Your task to perform on an android device: allow cookies in the chrome app Image 0: 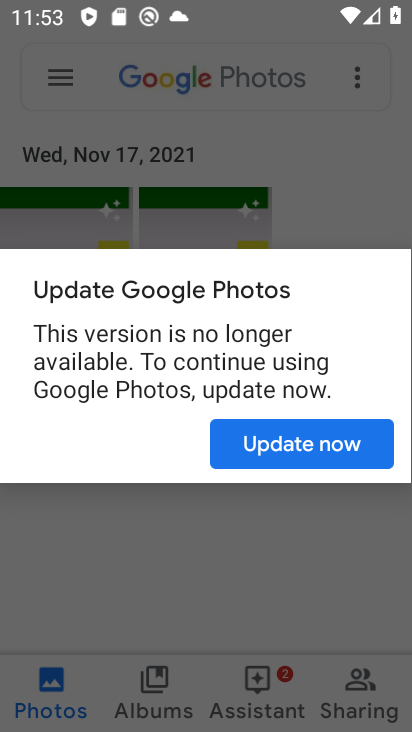
Step 0: press home button
Your task to perform on an android device: allow cookies in the chrome app Image 1: 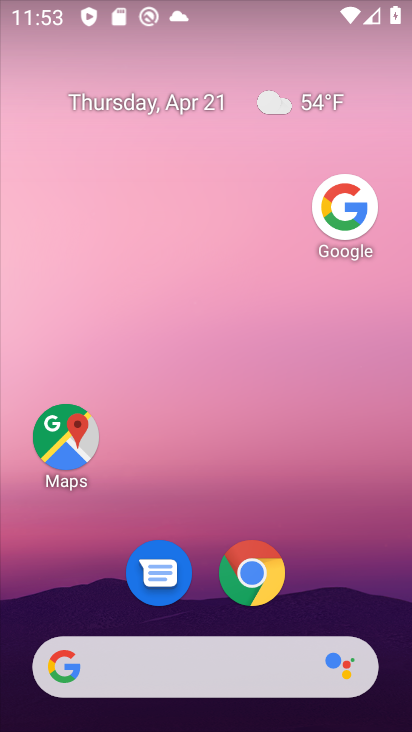
Step 1: drag from (179, 669) to (246, 159)
Your task to perform on an android device: allow cookies in the chrome app Image 2: 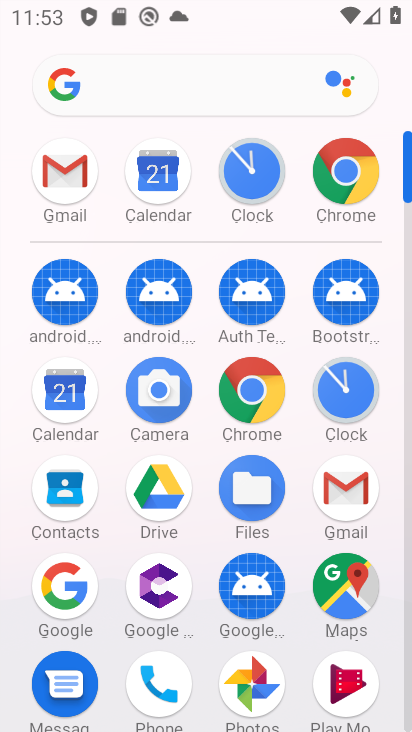
Step 2: click (346, 189)
Your task to perform on an android device: allow cookies in the chrome app Image 3: 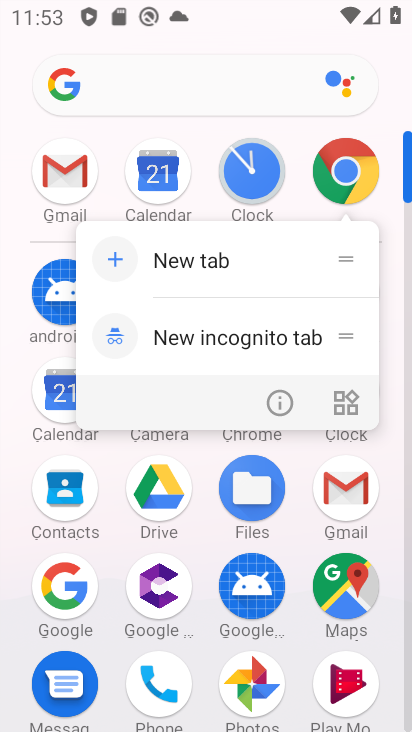
Step 3: click (347, 180)
Your task to perform on an android device: allow cookies in the chrome app Image 4: 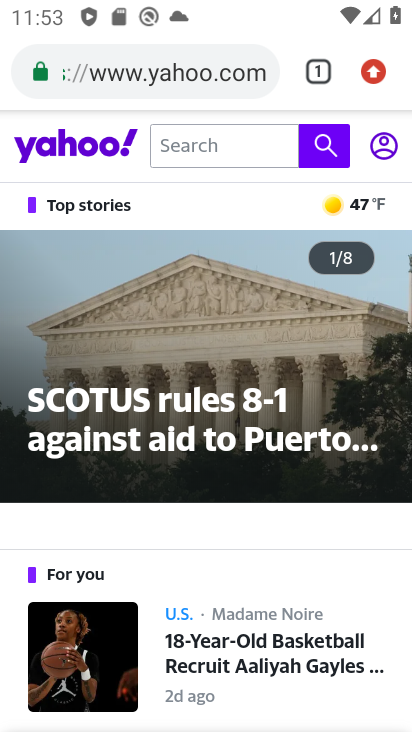
Step 4: click (369, 88)
Your task to perform on an android device: allow cookies in the chrome app Image 5: 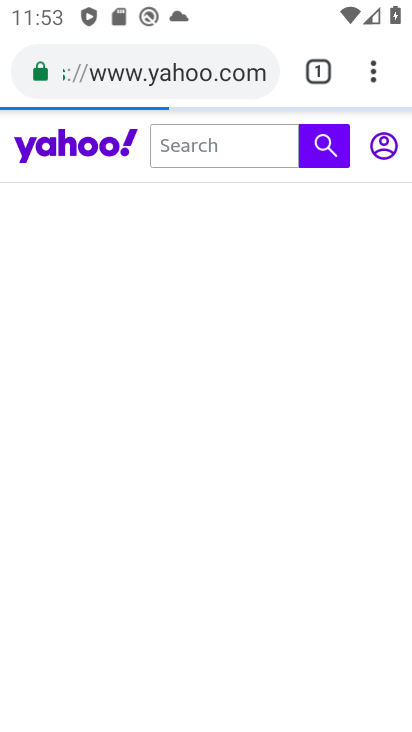
Step 5: click (364, 84)
Your task to perform on an android device: allow cookies in the chrome app Image 6: 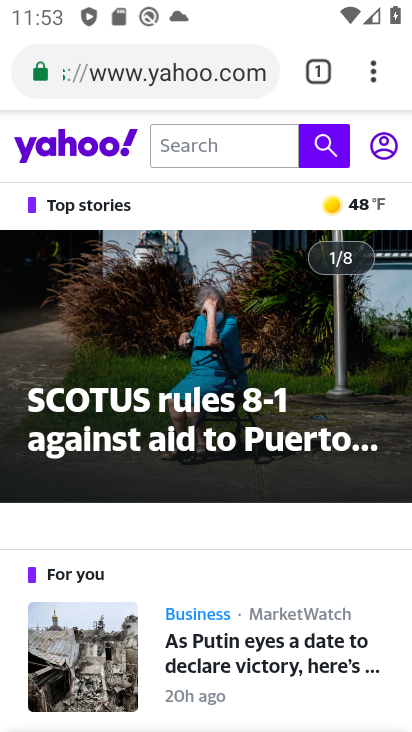
Step 6: click (358, 84)
Your task to perform on an android device: allow cookies in the chrome app Image 7: 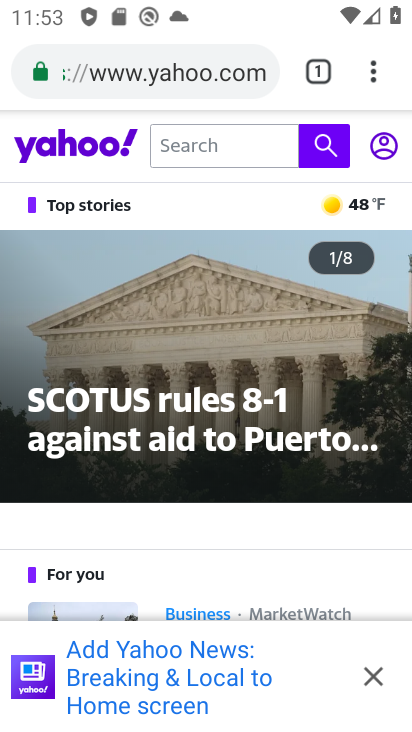
Step 7: click (362, 87)
Your task to perform on an android device: allow cookies in the chrome app Image 8: 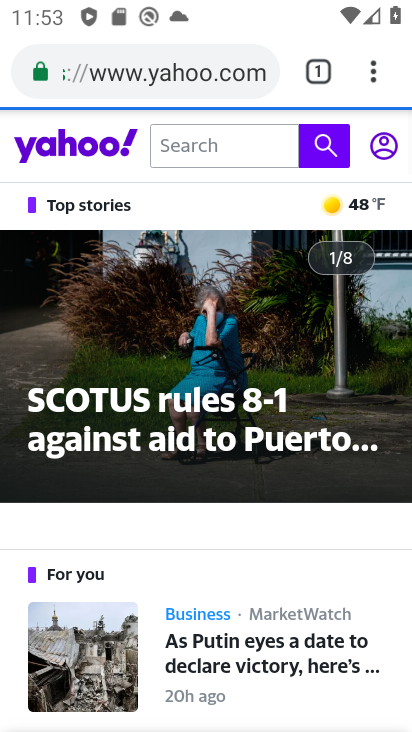
Step 8: click (357, 85)
Your task to perform on an android device: allow cookies in the chrome app Image 9: 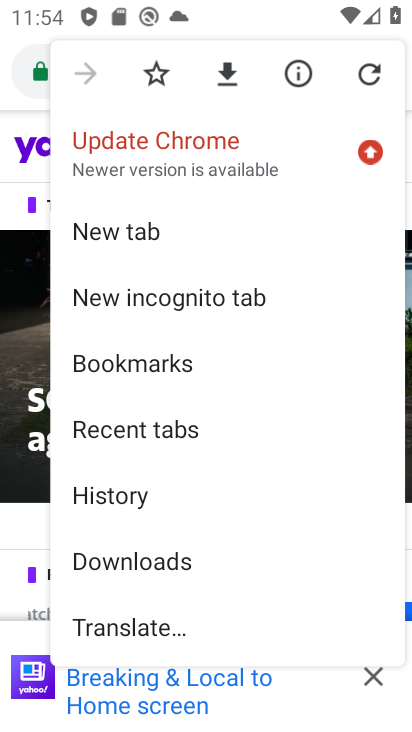
Step 9: drag from (220, 537) to (360, 128)
Your task to perform on an android device: allow cookies in the chrome app Image 10: 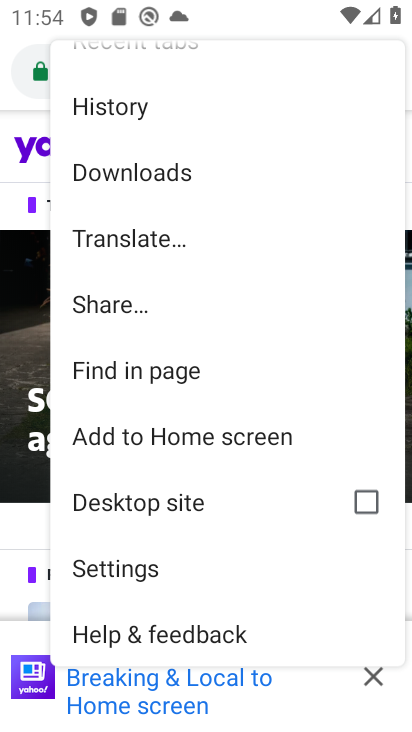
Step 10: drag from (139, 595) to (334, 182)
Your task to perform on an android device: allow cookies in the chrome app Image 11: 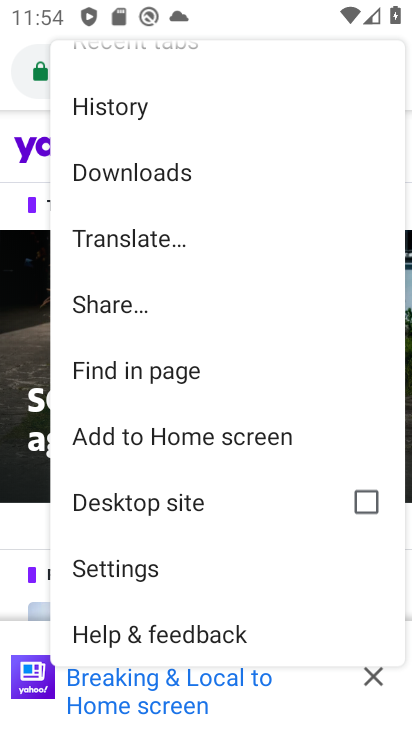
Step 11: click (118, 573)
Your task to perform on an android device: allow cookies in the chrome app Image 12: 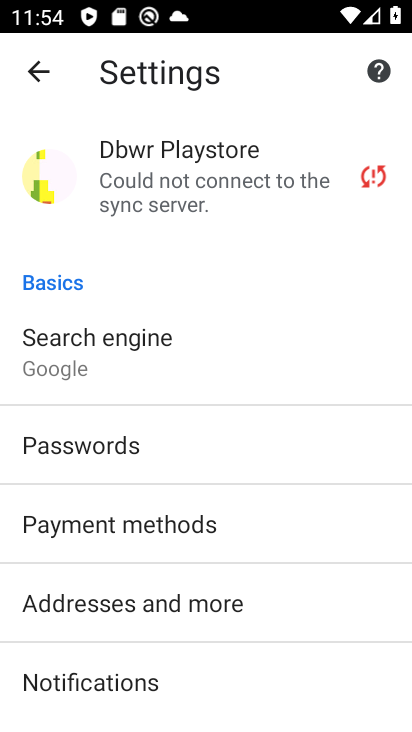
Step 12: drag from (126, 676) to (323, 271)
Your task to perform on an android device: allow cookies in the chrome app Image 13: 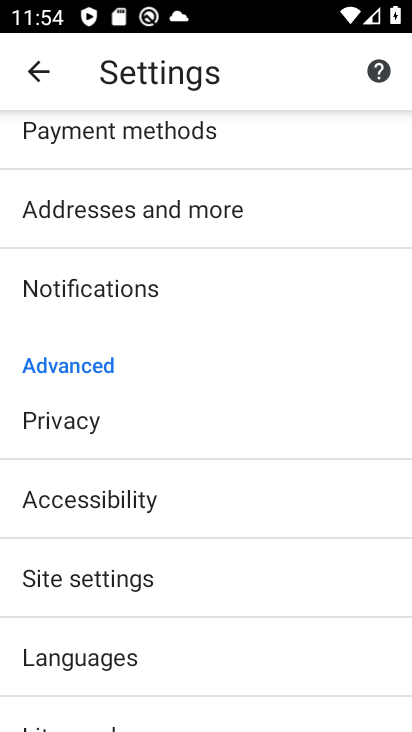
Step 13: click (116, 584)
Your task to perform on an android device: allow cookies in the chrome app Image 14: 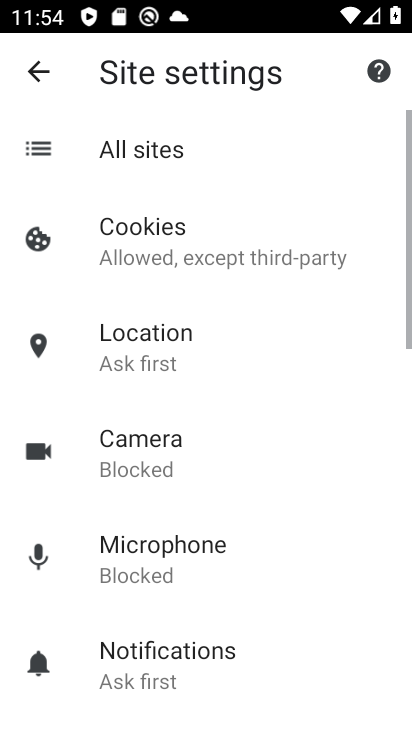
Step 14: click (202, 237)
Your task to perform on an android device: allow cookies in the chrome app Image 15: 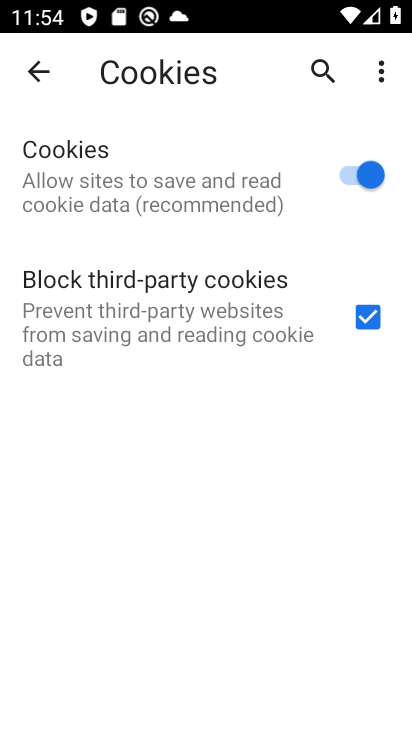
Step 15: task complete